Your task to perform on an android device: delete location history Image 0: 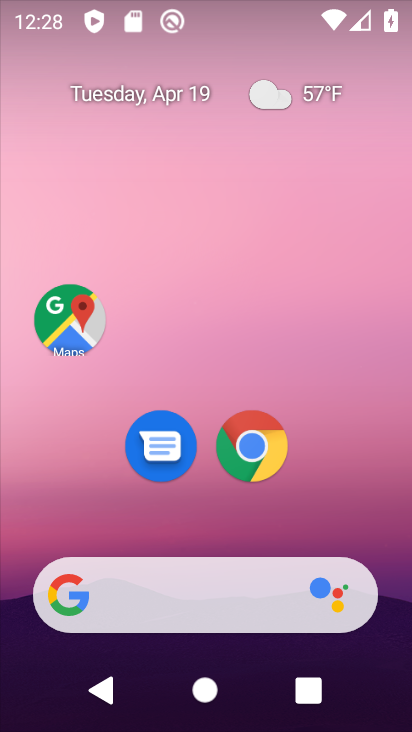
Step 0: click (59, 329)
Your task to perform on an android device: delete location history Image 1: 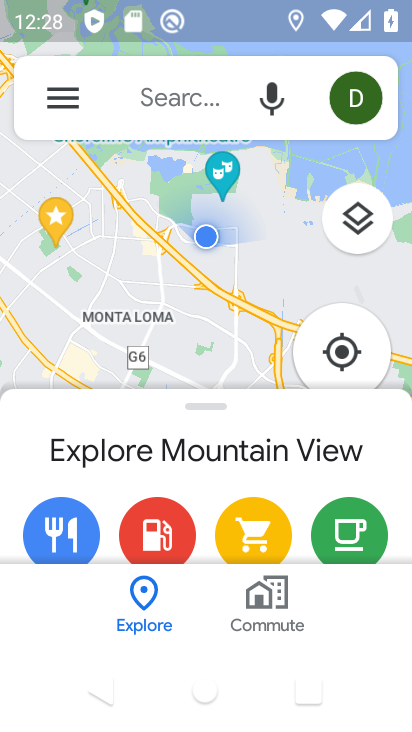
Step 1: click (68, 91)
Your task to perform on an android device: delete location history Image 2: 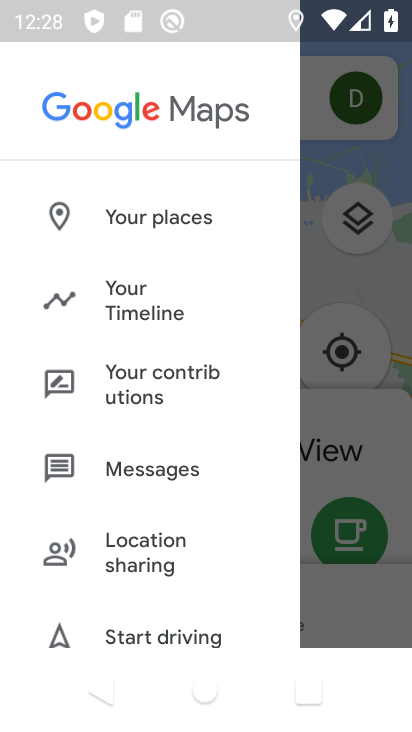
Step 2: click (132, 301)
Your task to perform on an android device: delete location history Image 3: 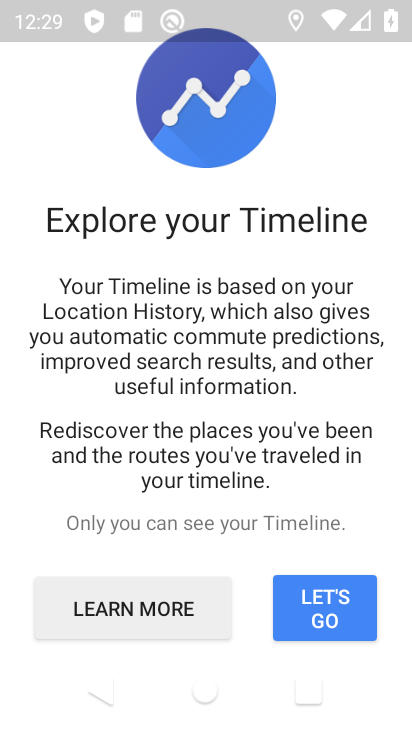
Step 3: click (322, 597)
Your task to perform on an android device: delete location history Image 4: 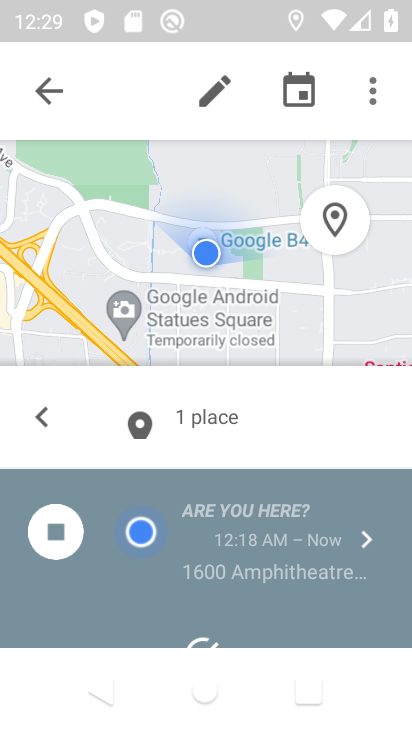
Step 4: click (372, 88)
Your task to perform on an android device: delete location history Image 5: 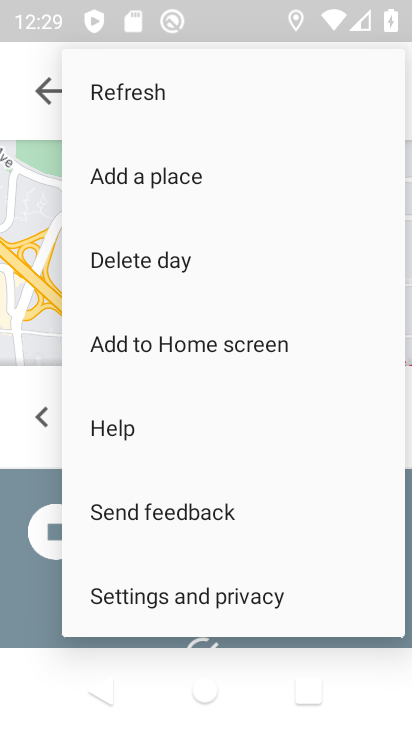
Step 5: click (237, 594)
Your task to perform on an android device: delete location history Image 6: 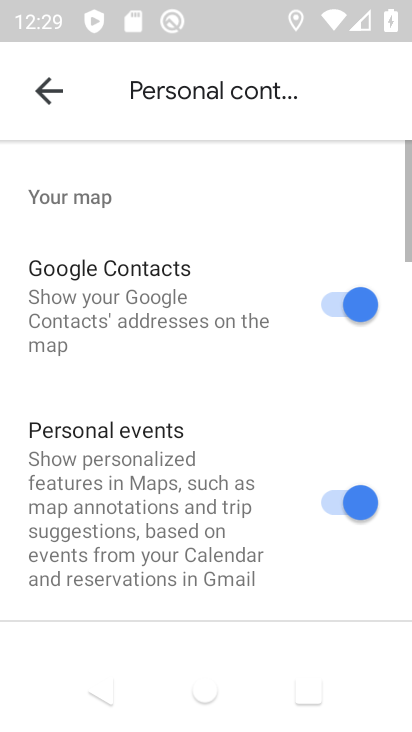
Step 6: drag from (224, 516) to (276, 231)
Your task to perform on an android device: delete location history Image 7: 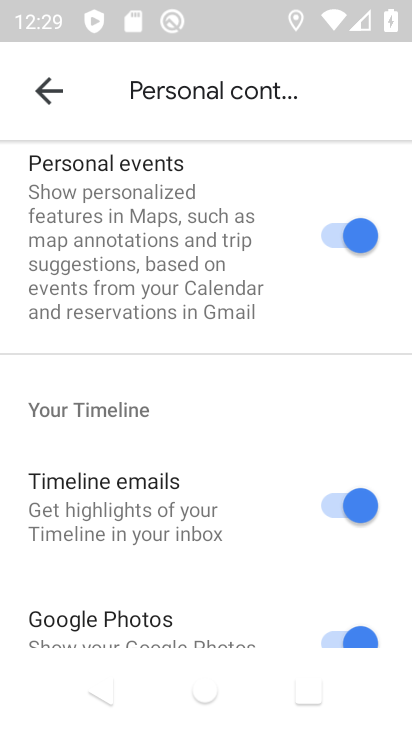
Step 7: drag from (194, 495) to (204, 184)
Your task to perform on an android device: delete location history Image 8: 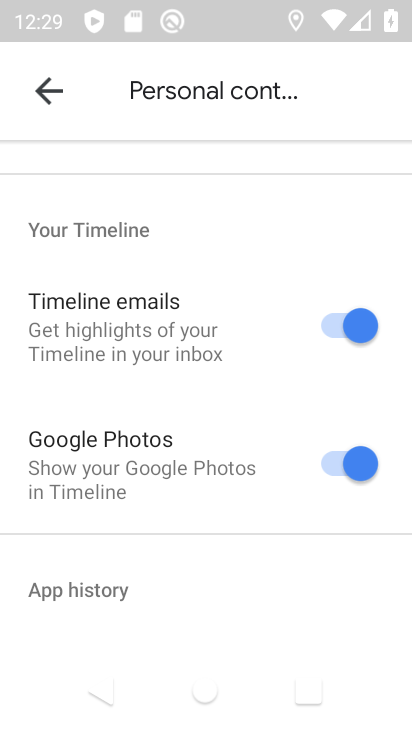
Step 8: drag from (165, 510) to (187, 255)
Your task to perform on an android device: delete location history Image 9: 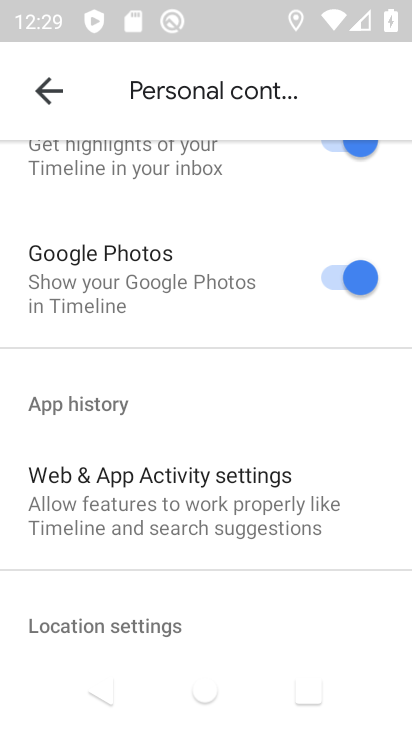
Step 9: drag from (192, 502) to (282, 210)
Your task to perform on an android device: delete location history Image 10: 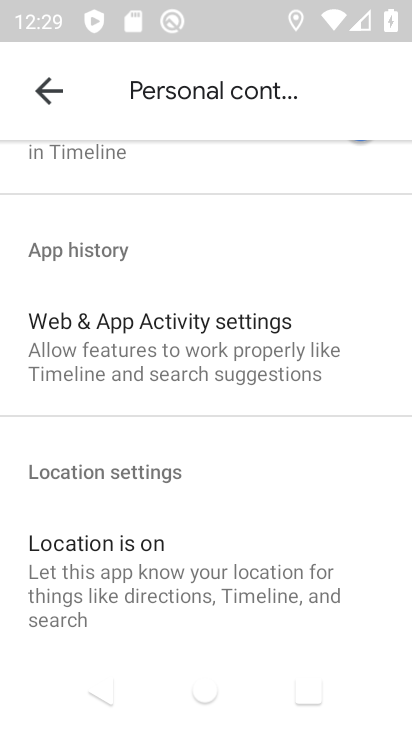
Step 10: drag from (212, 545) to (249, 224)
Your task to perform on an android device: delete location history Image 11: 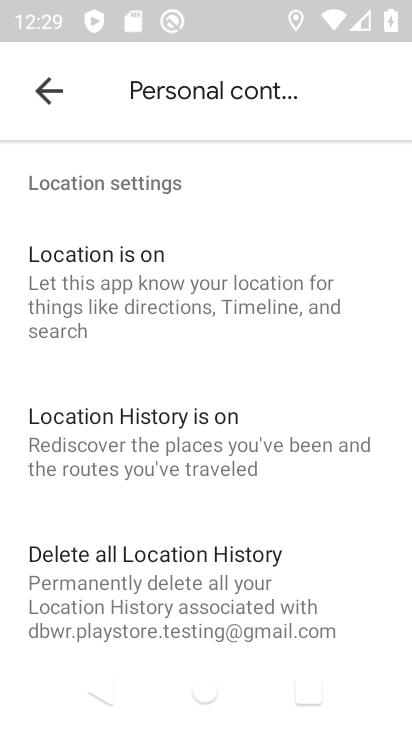
Step 11: click (197, 569)
Your task to perform on an android device: delete location history Image 12: 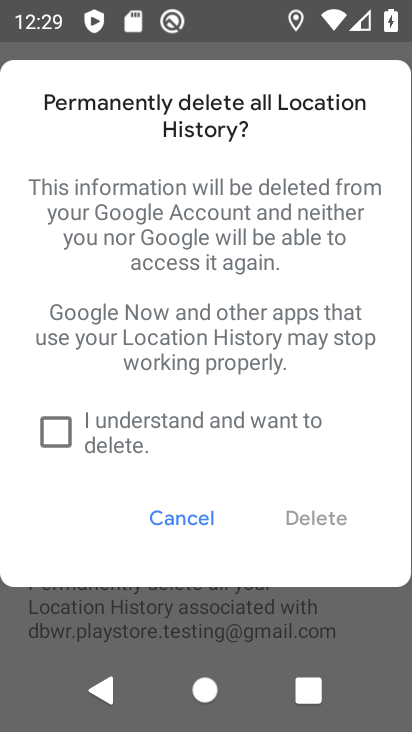
Step 12: click (59, 424)
Your task to perform on an android device: delete location history Image 13: 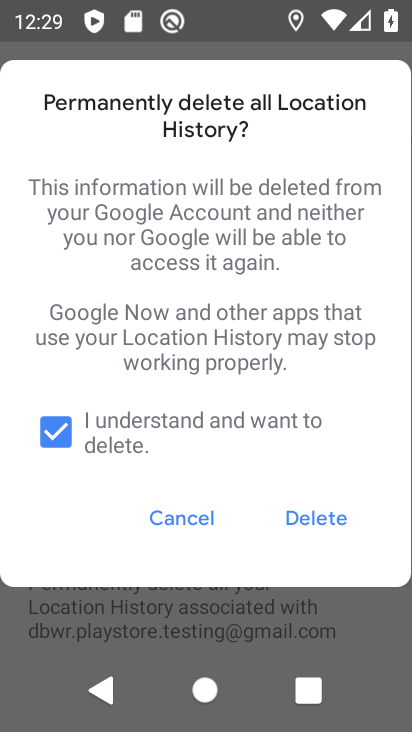
Step 13: click (314, 513)
Your task to perform on an android device: delete location history Image 14: 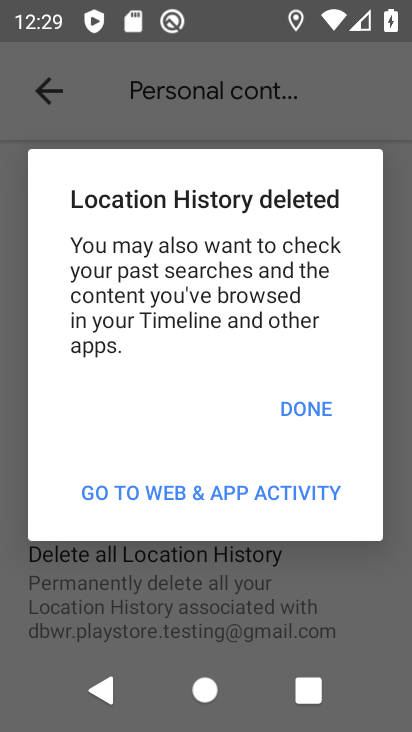
Step 14: click (315, 401)
Your task to perform on an android device: delete location history Image 15: 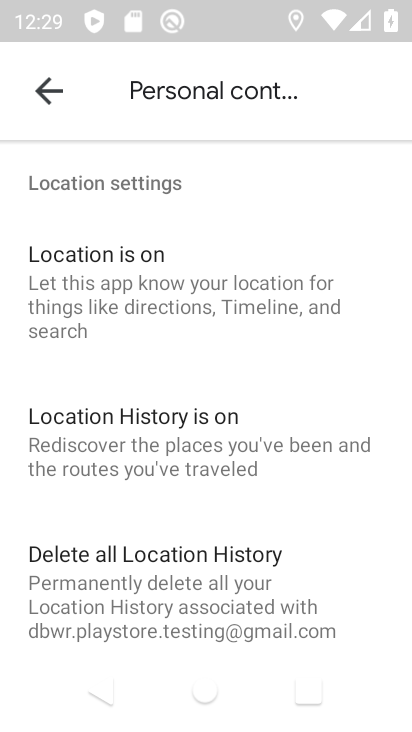
Step 15: task complete